Your task to perform on an android device: turn vacation reply on in the gmail app Image 0: 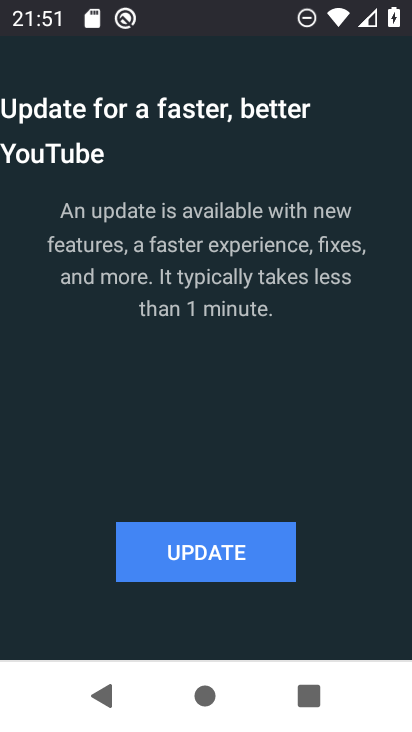
Step 0: press home button
Your task to perform on an android device: turn vacation reply on in the gmail app Image 1: 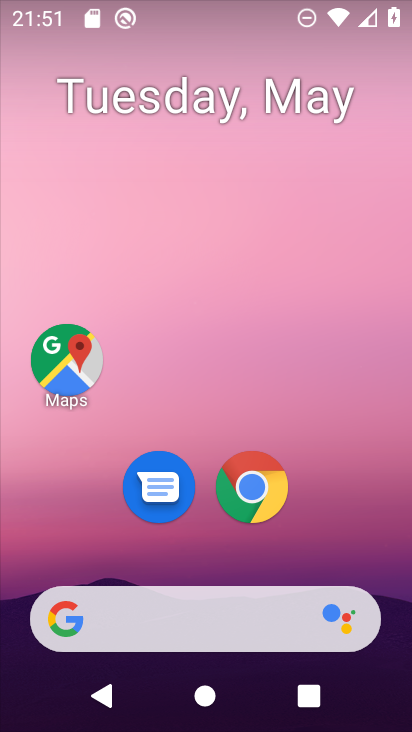
Step 1: drag from (202, 619) to (334, 37)
Your task to perform on an android device: turn vacation reply on in the gmail app Image 2: 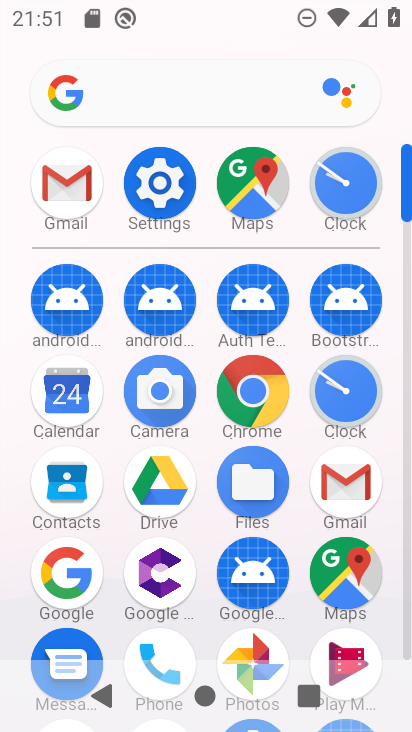
Step 2: click (74, 190)
Your task to perform on an android device: turn vacation reply on in the gmail app Image 3: 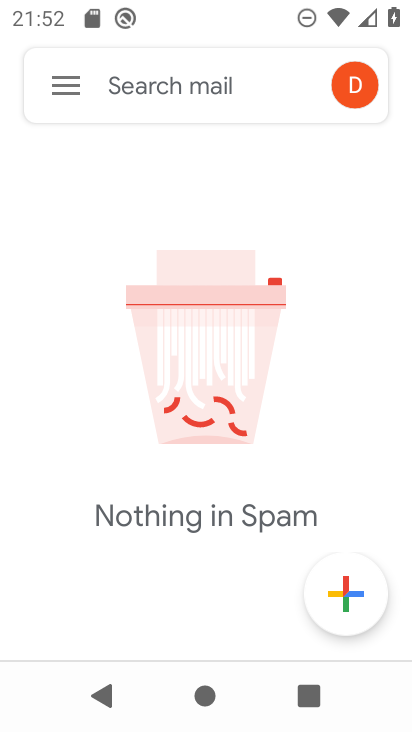
Step 3: click (67, 82)
Your task to perform on an android device: turn vacation reply on in the gmail app Image 4: 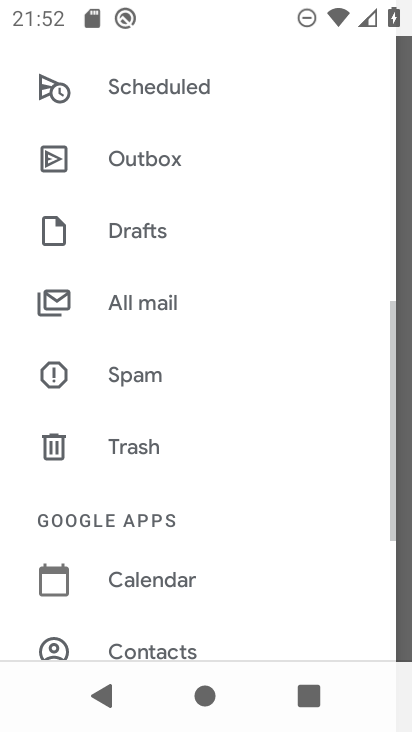
Step 4: drag from (209, 598) to (372, 48)
Your task to perform on an android device: turn vacation reply on in the gmail app Image 5: 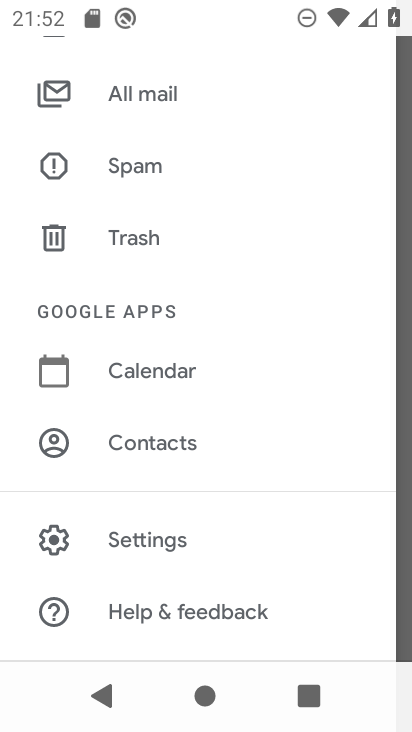
Step 5: click (170, 545)
Your task to perform on an android device: turn vacation reply on in the gmail app Image 6: 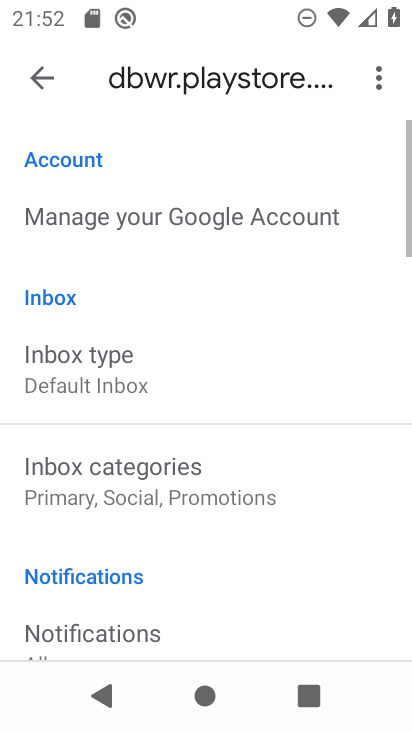
Step 6: drag from (162, 569) to (263, 80)
Your task to perform on an android device: turn vacation reply on in the gmail app Image 7: 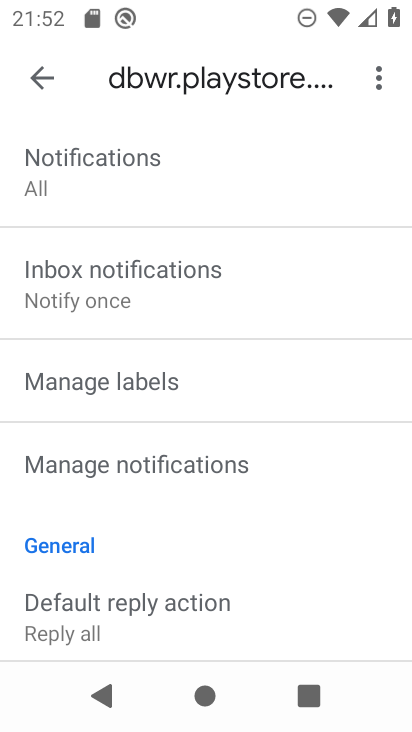
Step 7: drag from (198, 537) to (271, 134)
Your task to perform on an android device: turn vacation reply on in the gmail app Image 8: 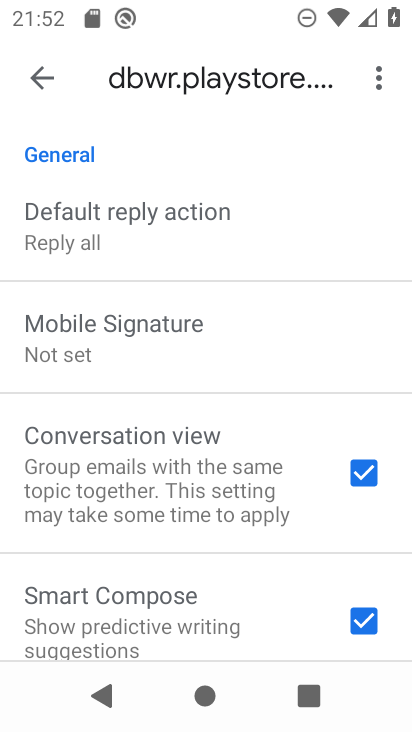
Step 8: drag from (156, 521) to (275, 128)
Your task to perform on an android device: turn vacation reply on in the gmail app Image 9: 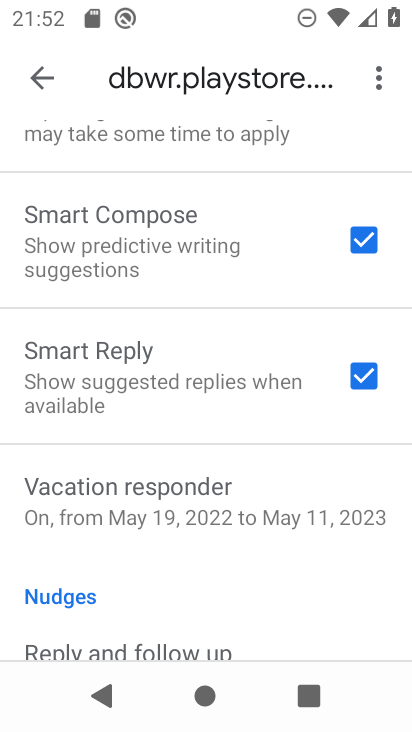
Step 9: click (127, 502)
Your task to perform on an android device: turn vacation reply on in the gmail app Image 10: 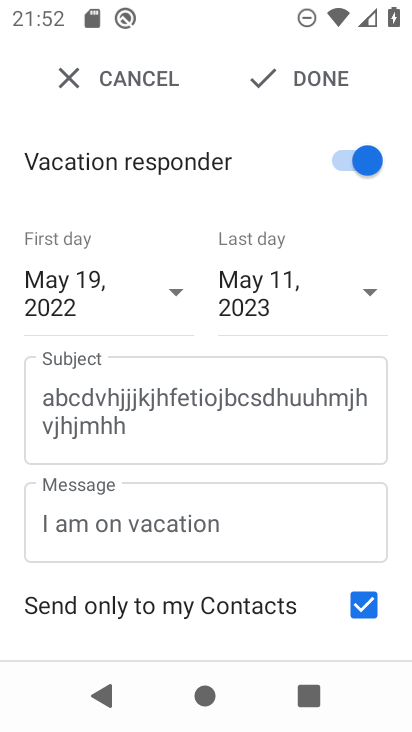
Step 10: task complete